Your task to perform on an android device: Clear all items from cart on newegg. Search for "macbook" on newegg, select the first entry, and add it to the cart. Image 0: 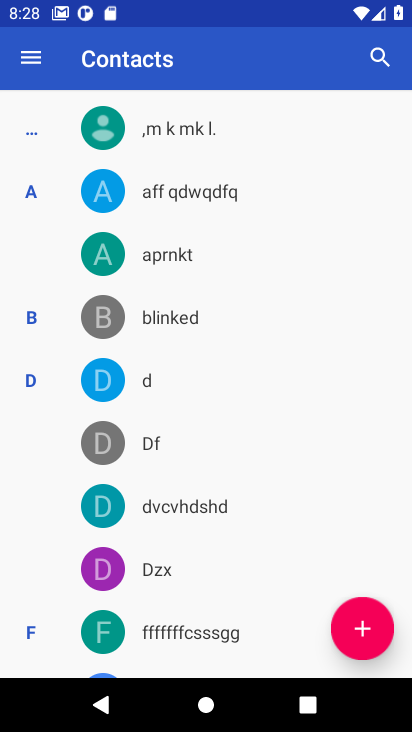
Step 0: press home button
Your task to perform on an android device: Clear all items from cart on newegg. Search for "macbook" on newegg, select the first entry, and add it to the cart. Image 1: 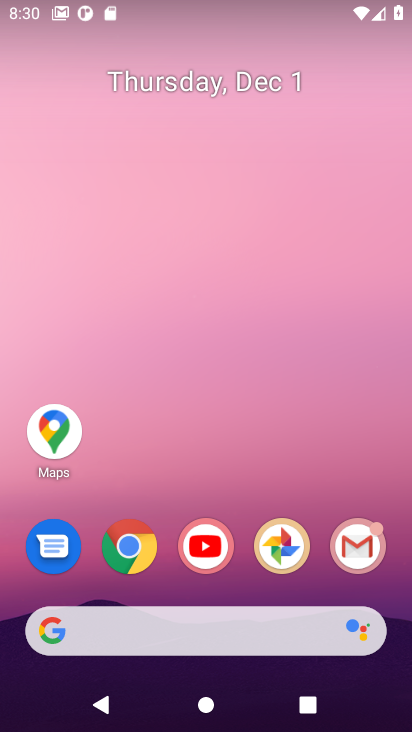
Step 1: click (132, 555)
Your task to perform on an android device: Clear all items from cart on newegg. Search for "macbook" on newegg, select the first entry, and add it to the cart. Image 2: 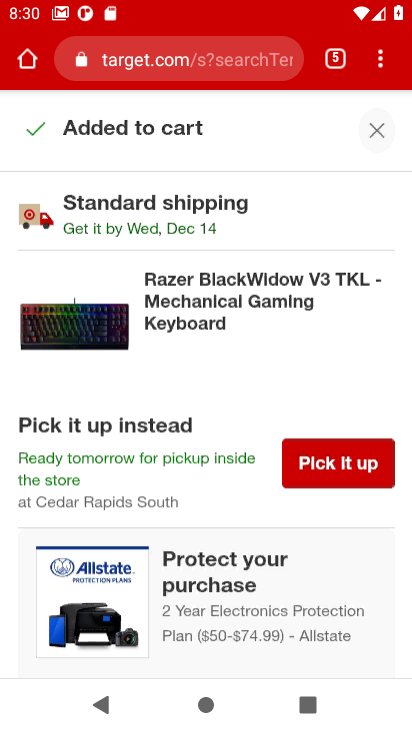
Step 2: click (129, 66)
Your task to perform on an android device: Clear all items from cart on newegg. Search for "macbook" on newegg, select the first entry, and add it to the cart. Image 3: 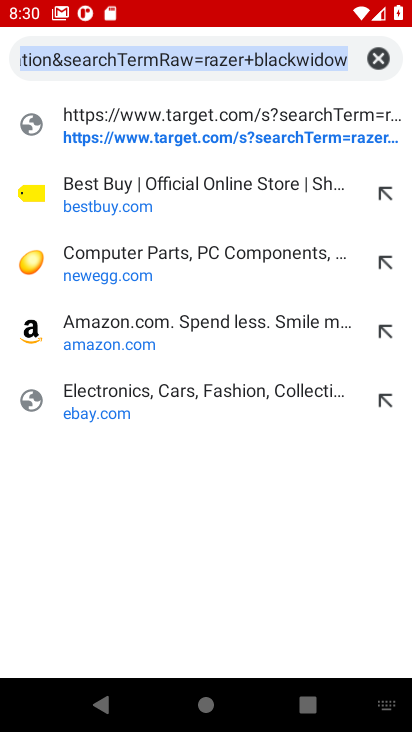
Step 3: click (92, 258)
Your task to perform on an android device: Clear all items from cart on newegg. Search for "macbook" on newegg, select the first entry, and add it to the cart. Image 4: 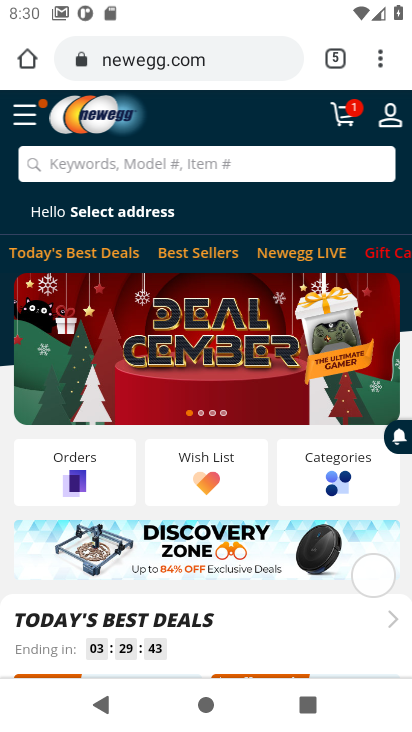
Step 4: click (348, 115)
Your task to perform on an android device: Clear all items from cart on newegg. Search for "macbook" on newegg, select the first entry, and add it to the cart. Image 5: 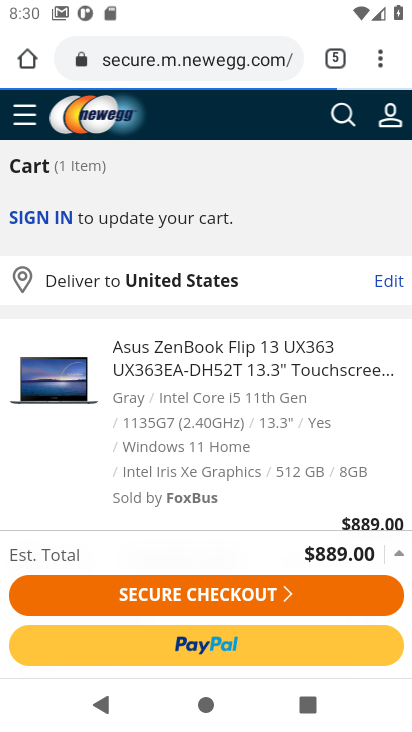
Step 5: drag from (87, 462) to (104, 239)
Your task to perform on an android device: Clear all items from cart on newegg. Search for "macbook" on newegg, select the first entry, and add it to the cart. Image 6: 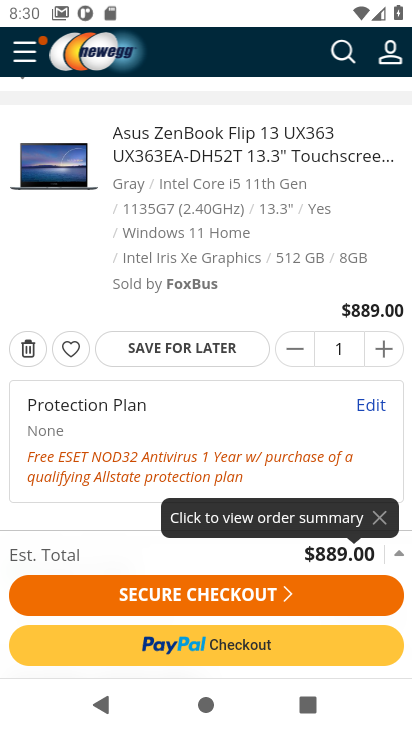
Step 6: click (30, 353)
Your task to perform on an android device: Clear all items from cart on newegg. Search for "macbook" on newegg, select the first entry, and add it to the cart. Image 7: 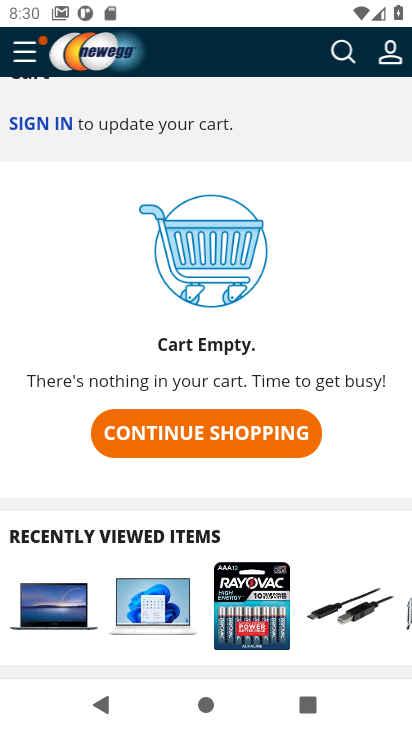
Step 7: click (343, 45)
Your task to perform on an android device: Clear all items from cart on newegg. Search for "macbook" on newegg, select the first entry, and add it to the cart. Image 8: 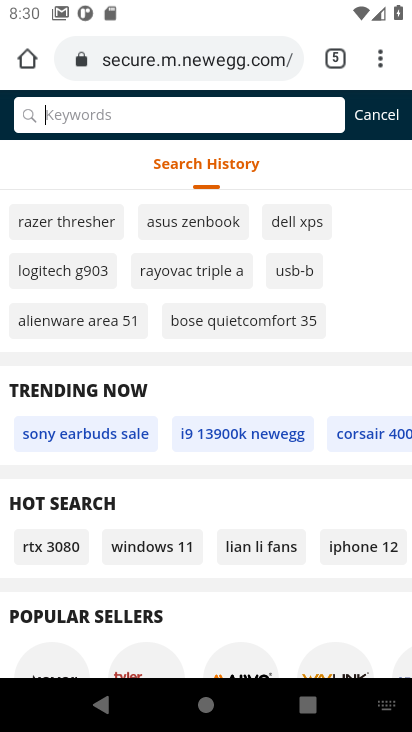
Step 8: type "macbook"
Your task to perform on an android device: Clear all items from cart on newegg. Search for "macbook" on newegg, select the first entry, and add it to the cart. Image 9: 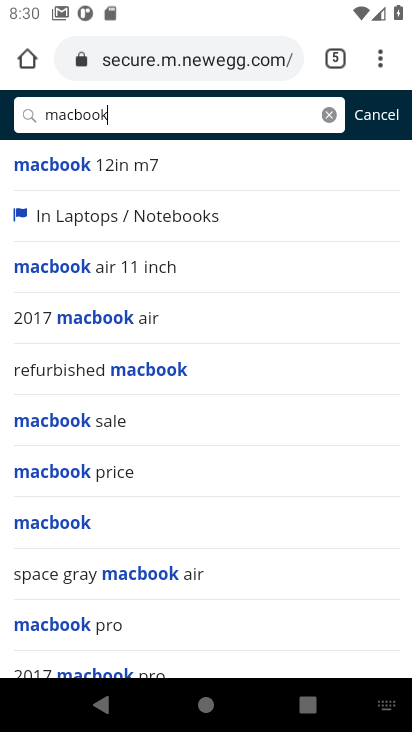
Step 9: click (46, 529)
Your task to perform on an android device: Clear all items from cart on newegg. Search for "macbook" on newegg, select the first entry, and add it to the cart. Image 10: 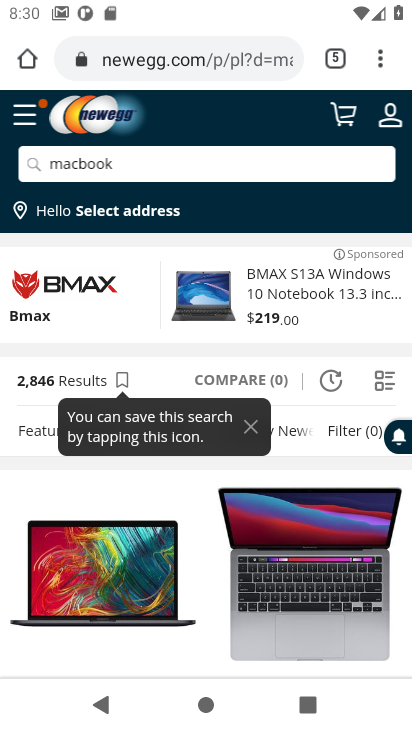
Step 10: drag from (111, 526) to (112, 308)
Your task to perform on an android device: Clear all items from cart on newegg. Search for "macbook" on newegg, select the first entry, and add it to the cart. Image 11: 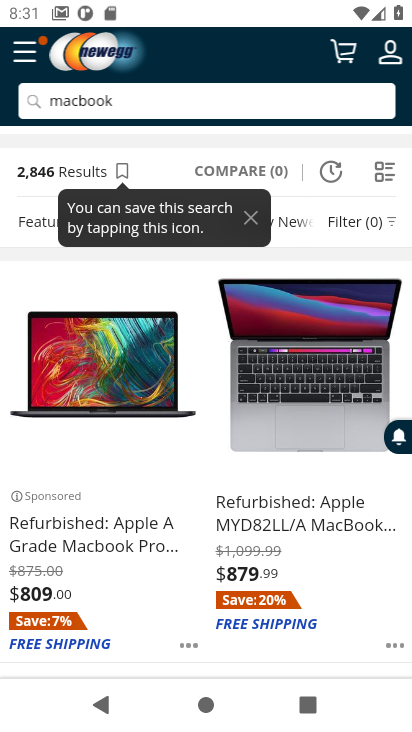
Step 11: drag from (71, 491) to (70, 399)
Your task to perform on an android device: Clear all items from cart on newegg. Search for "macbook" on newegg, select the first entry, and add it to the cart. Image 12: 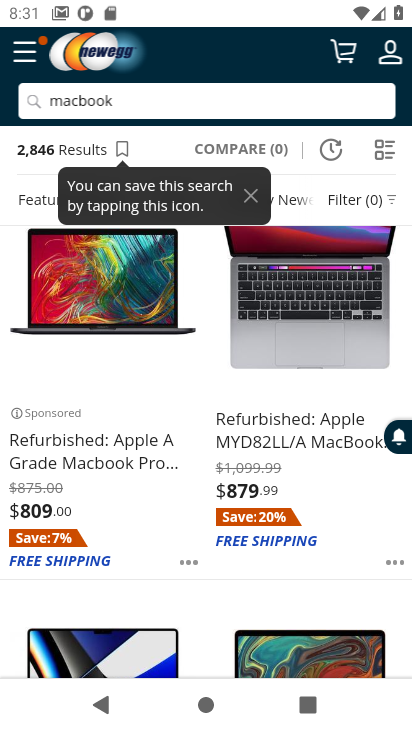
Step 12: click (54, 449)
Your task to perform on an android device: Clear all items from cart on newegg. Search for "macbook" on newegg, select the first entry, and add it to the cart. Image 13: 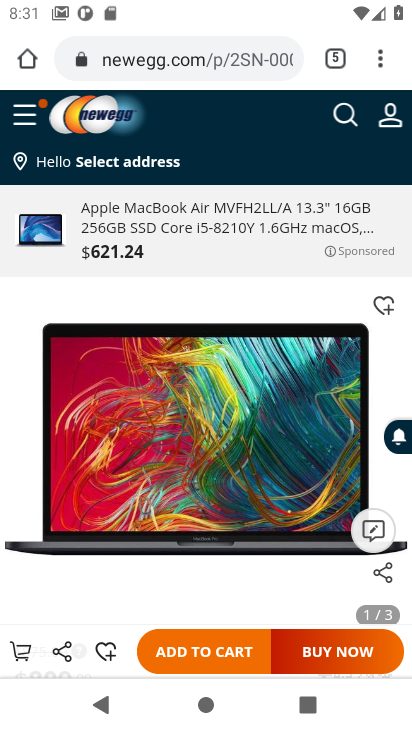
Step 13: click (192, 651)
Your task to perform on an android device: Clear all items from cart on newegg. Search for "macbook" on newegg, select the first entry, and add it to the cart. Image 14: 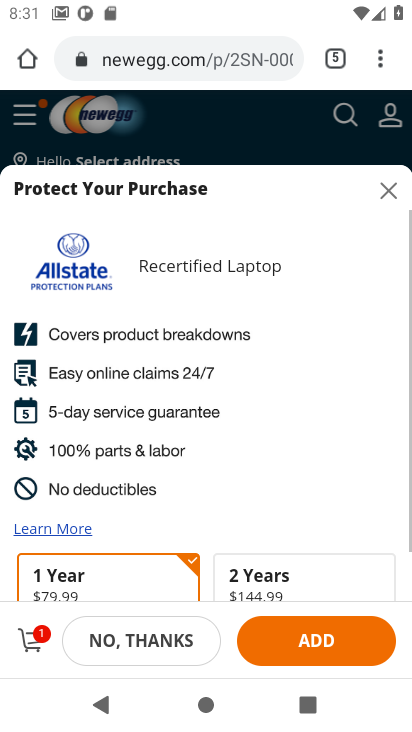
Step 14: task complete